Your task to perform on an android device: open device folders in google photos Image 0: 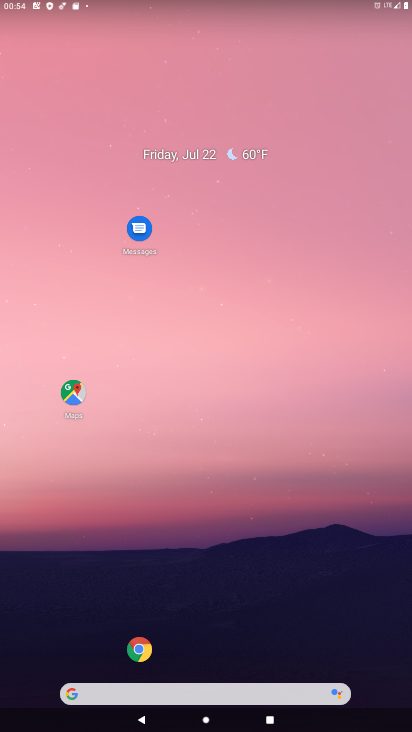
Step 0: drag from (182, 490) to (406, 192)
Your task to perform on an android device: open device folders in google photos Image 1: 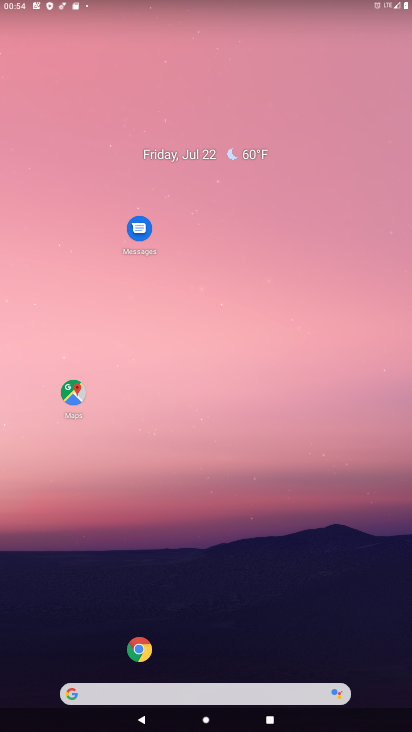
Step 1: drag from (32, 692) to (376, 170)
Your task to perform on an android device: open device folders in google photos Image 2: 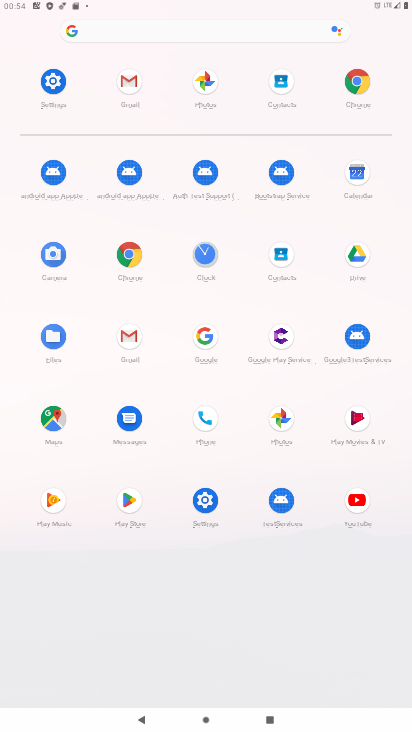
Step 2: click (277, 433)
Your task to perform on an android device: open device folders in google photos Image 3: 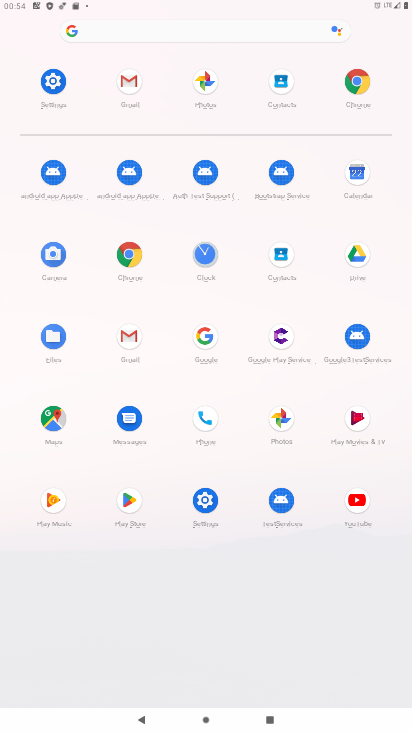
Step 3: click (279, 421)
Your task to perform on an android device: open device folders in google photos Image 4: 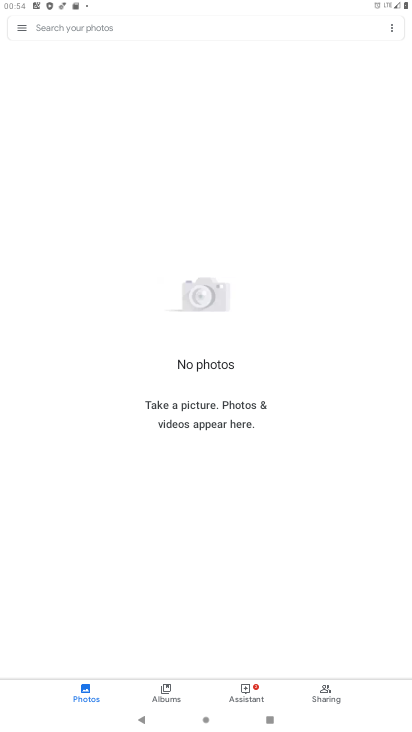
Step 4: click (9, 25)
Your task to perform on an android device: open device folders in google photos Image 5: 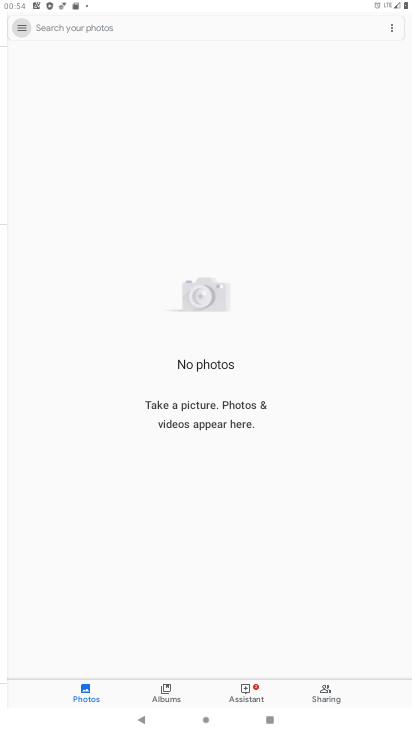
Step 5: click (16, 25)
Your task to perform on an android device: open device folders in google photos Image 6: 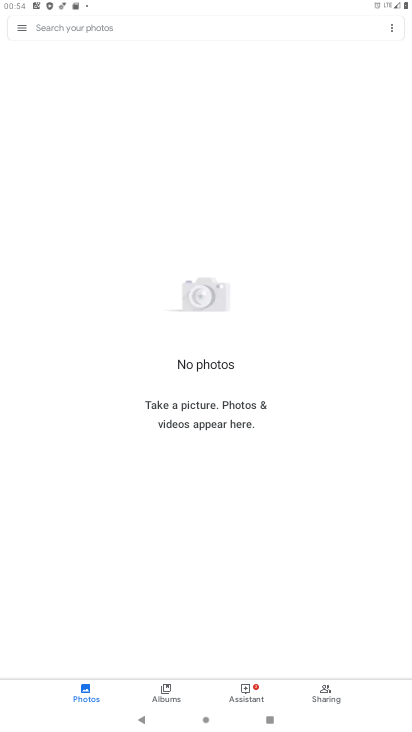
Step 6: click (23, 25)
Your task to perform on an android device: open device folders in google photos Image 7: 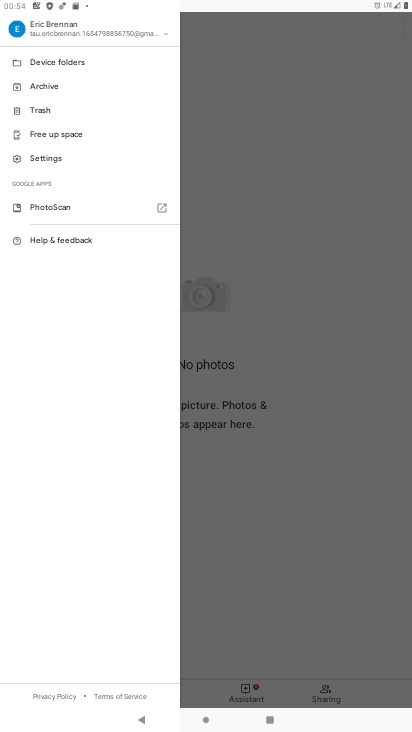
Step 7: click (66, 58)
Your task to perform on an android device: open device folders in google photos Image 8: 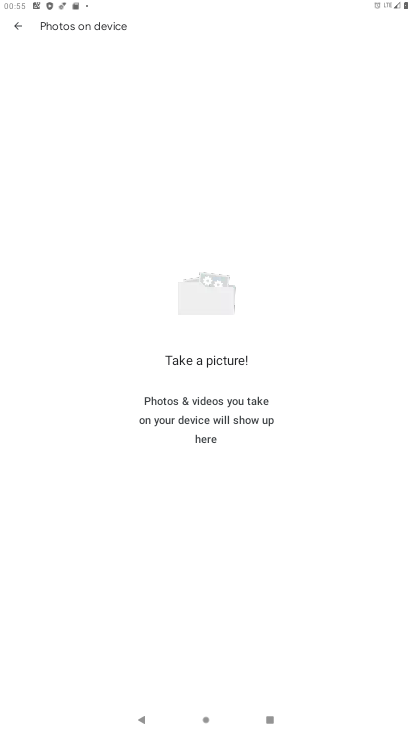
Step 8: task complete